Your task to perform on an android device: Go to battery settings Image 0: 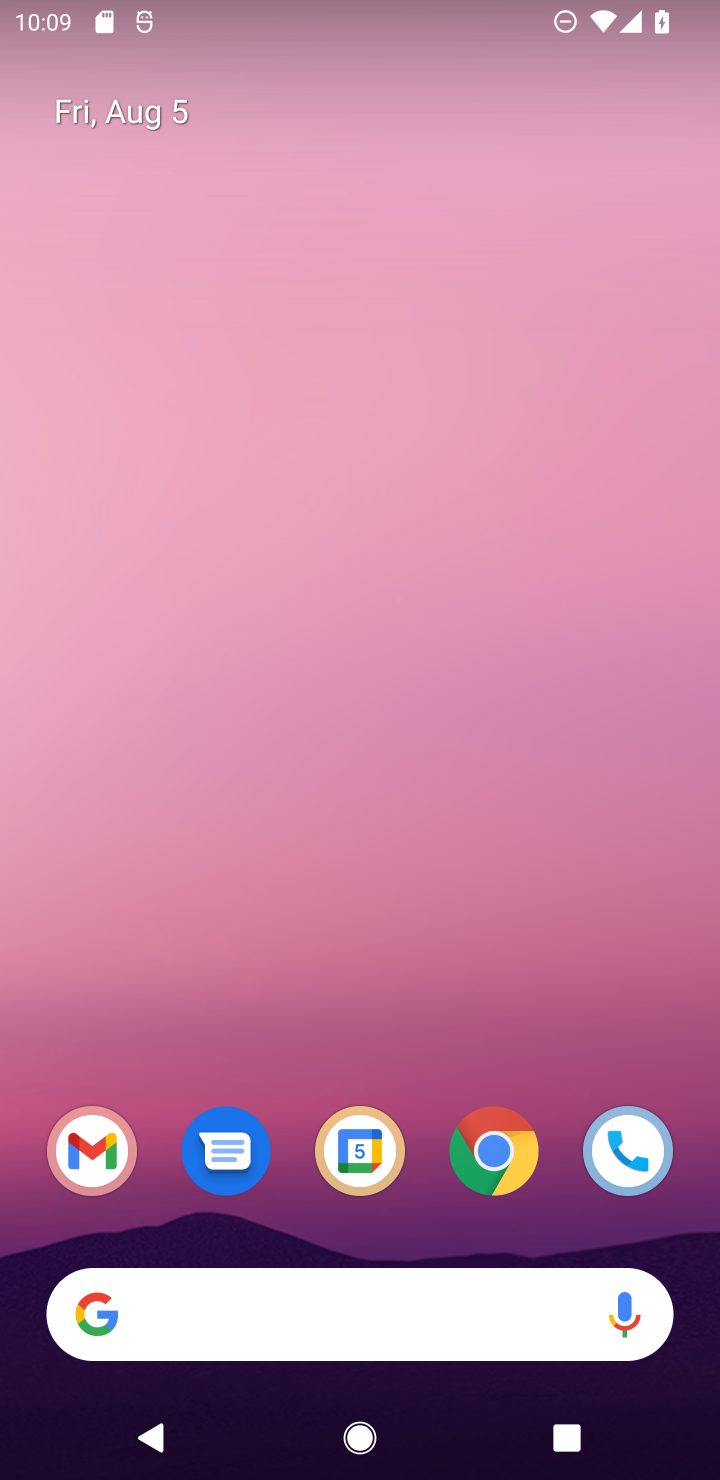
Step 0: drag from (296, 861) to (309, 568)
Your task to perform on an android device: Go to battery settings Image 1: 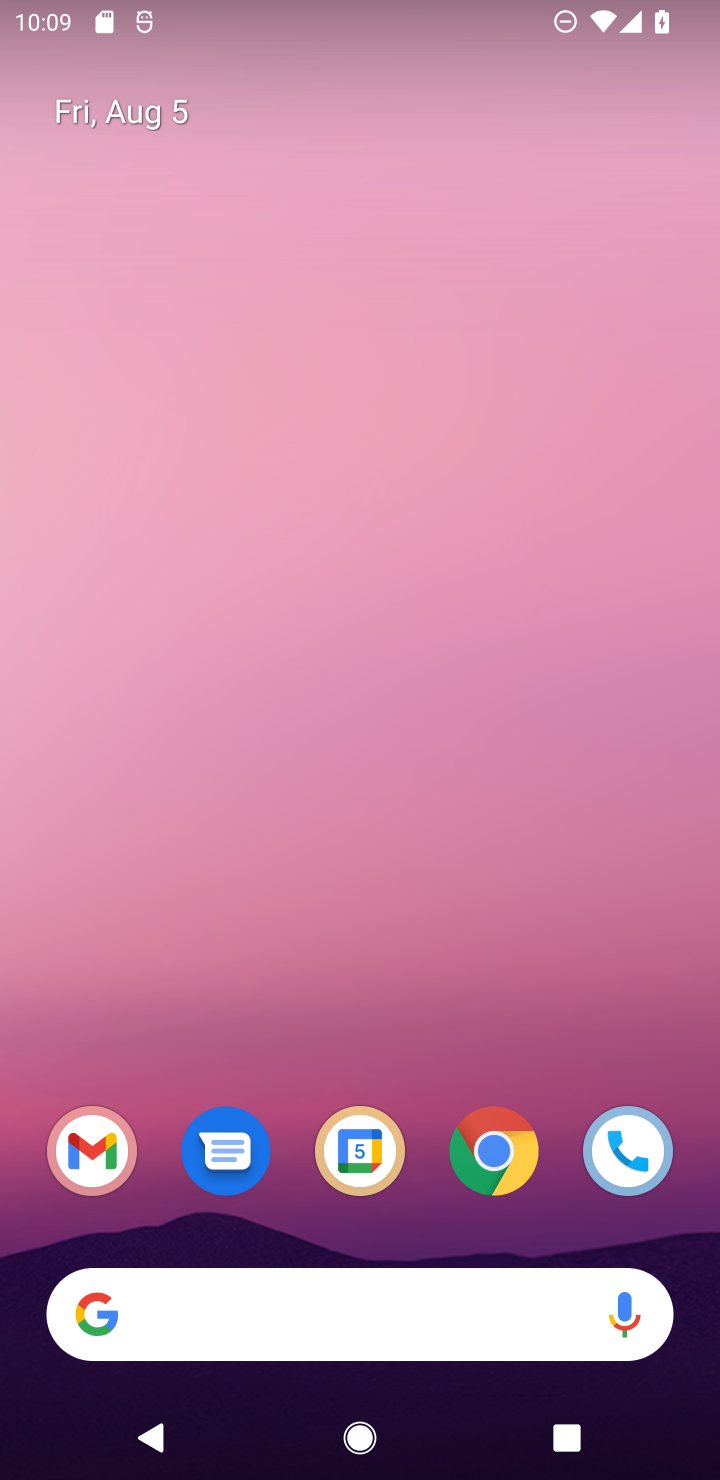
Step 1: click (246, 902)
Your task to perform on an android device: Go to battery settings Image 2: 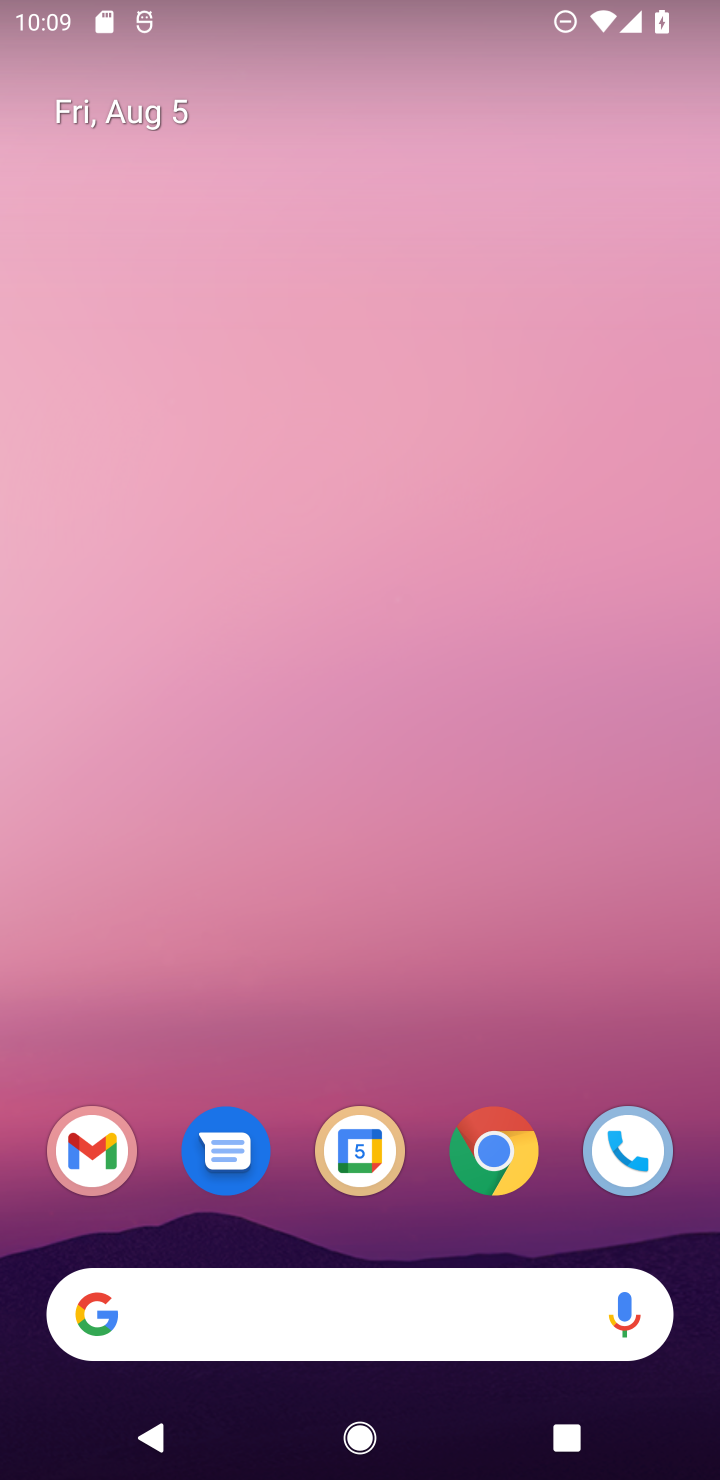
Step 2: drag from (339, 765) to (254, 35)
Your task to perform on an android device: Go to battery settings Image 3: 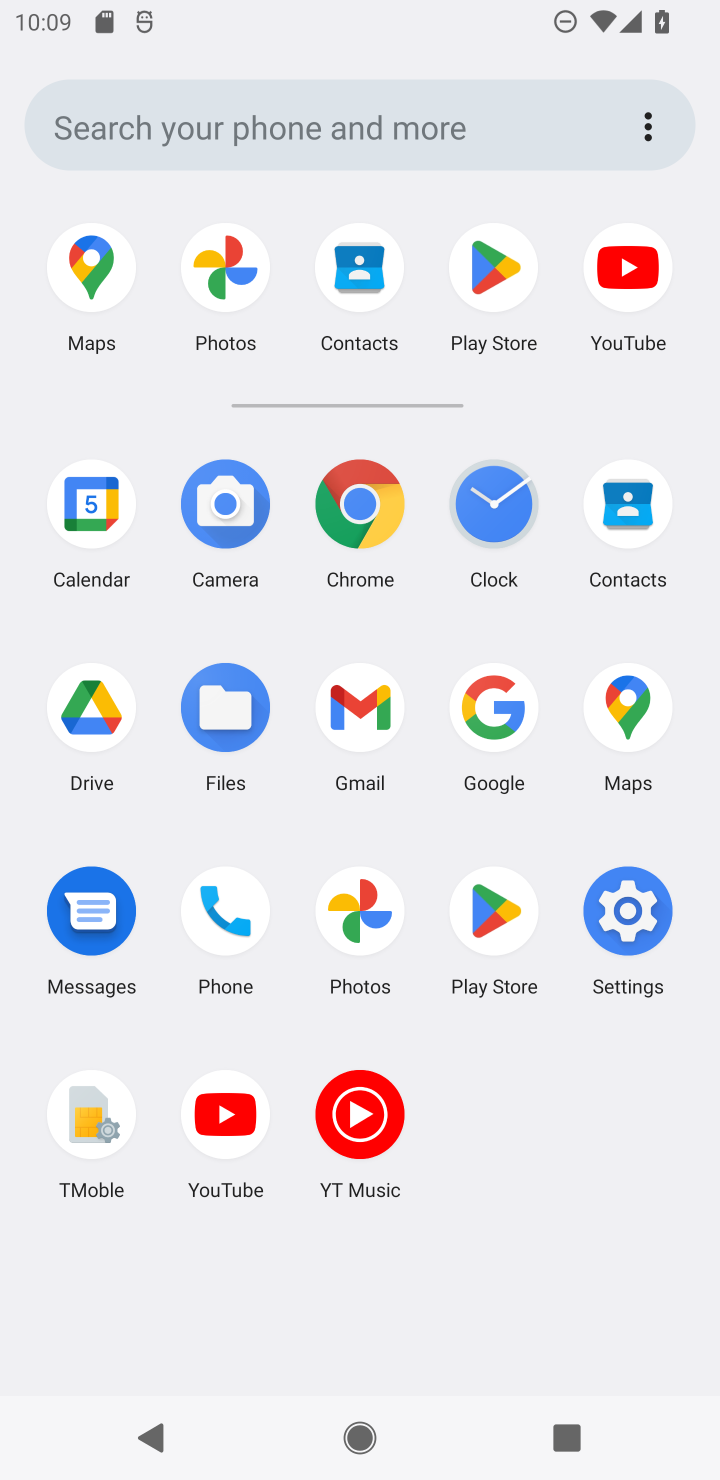
Step 3: click (624, 905)
Your task to perform on an android device: Go to battery settings Image 4: 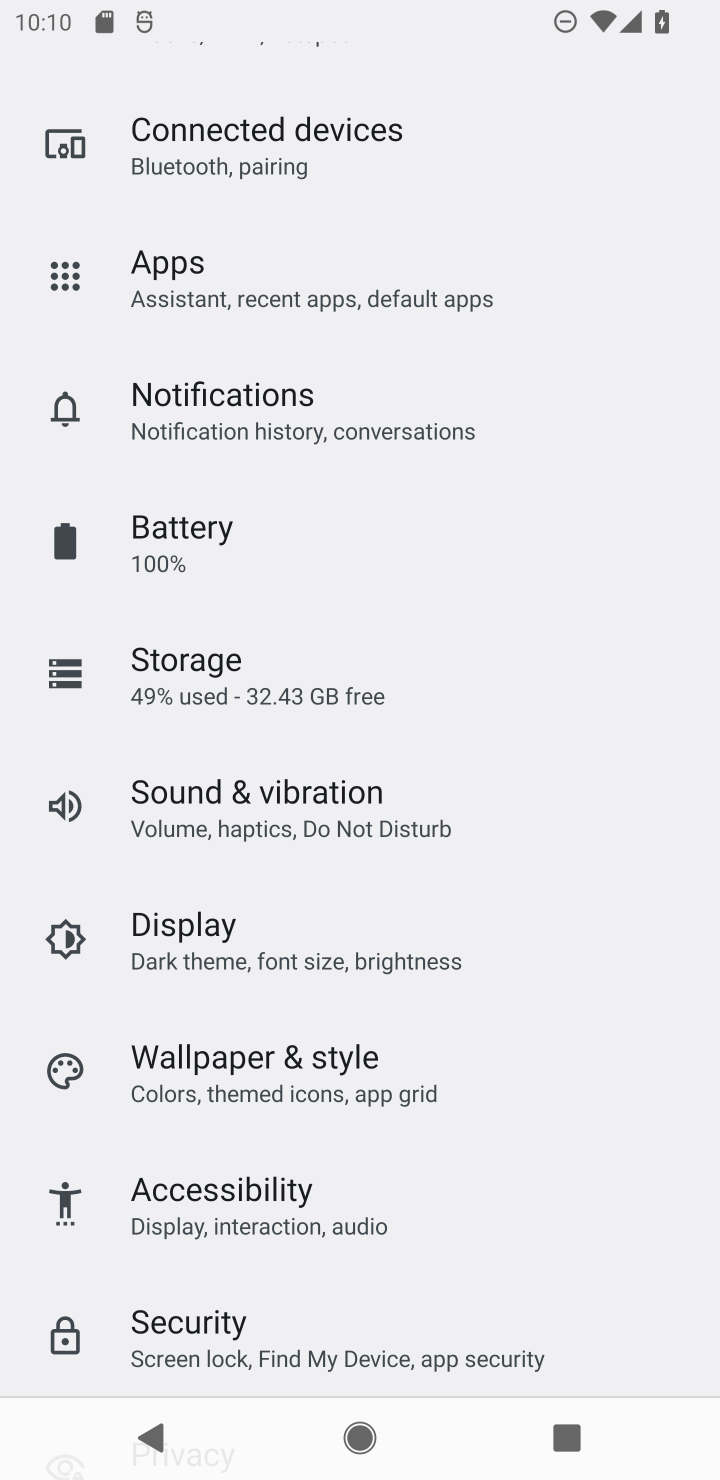
Step 4: click (184, 528)
Your task to perform on an android device: Go to battery settings Image 5: 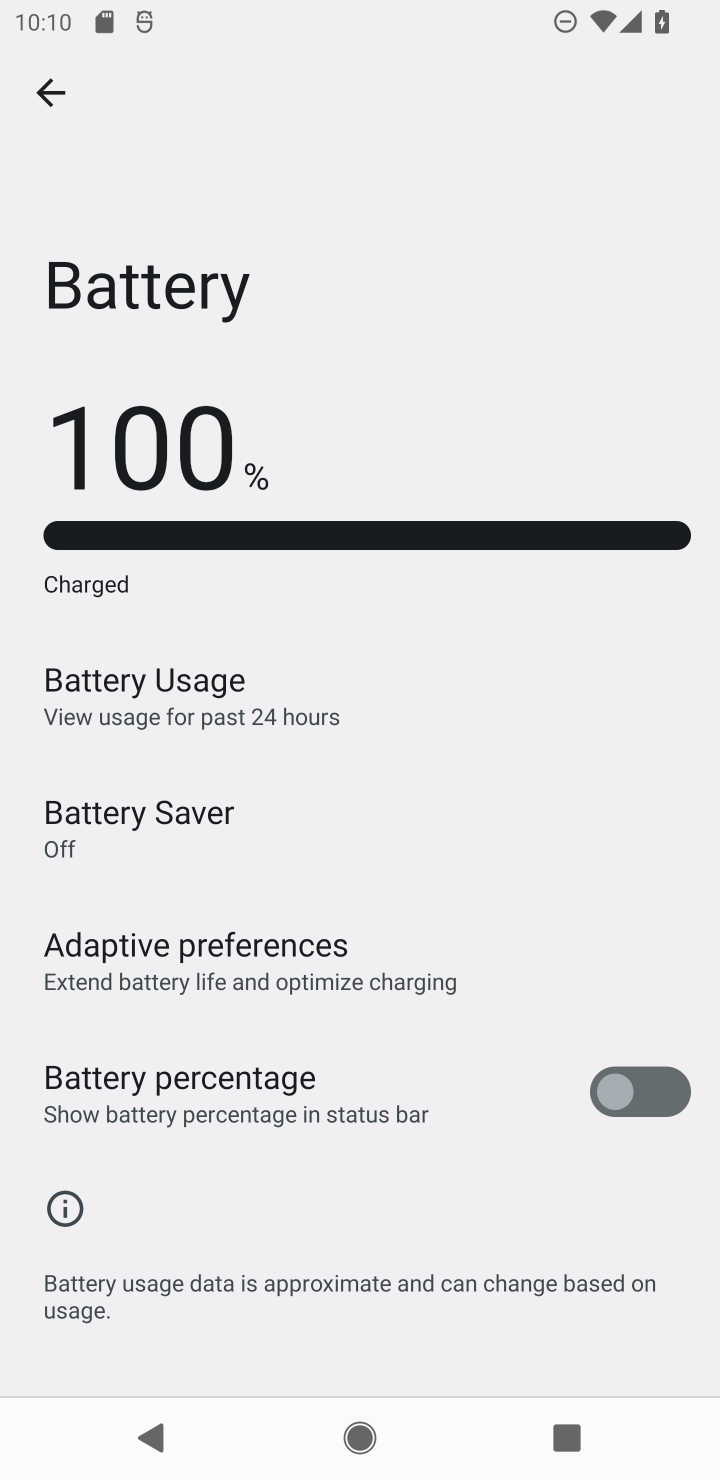
Step 5: task complete